Your task to perform on an android device: refresh tabs in the chrome app Image 0: 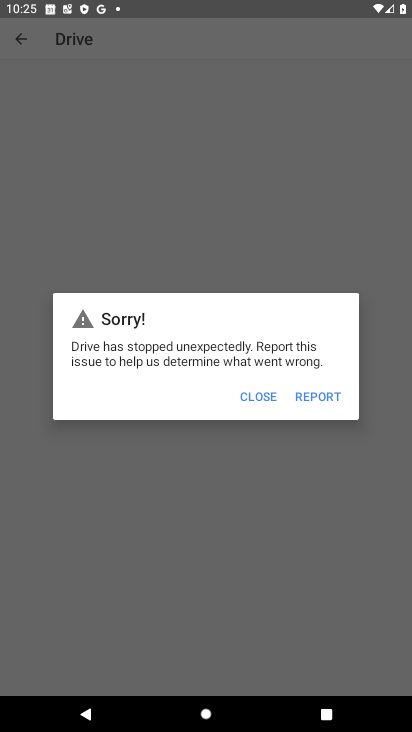
Step 0: press home button
Your task to perform on an android device: refresh tabs in the chrome app Image 1: 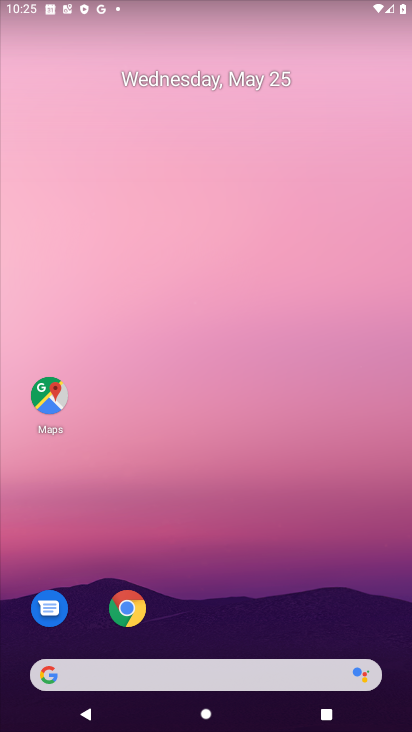
Step 1: click (132, 610)
Your task to perform on an android device: refresh tabs in the chrome app Image 2: 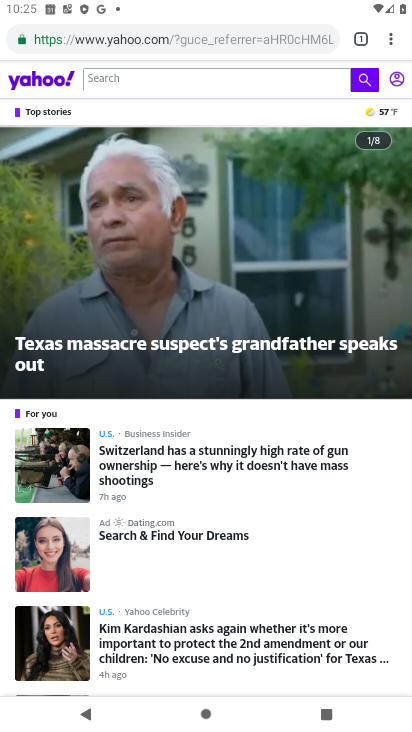
Step 2: click (391, 39)
Your task to perform on an android device: refresh tabs in the chrome app Image 3: 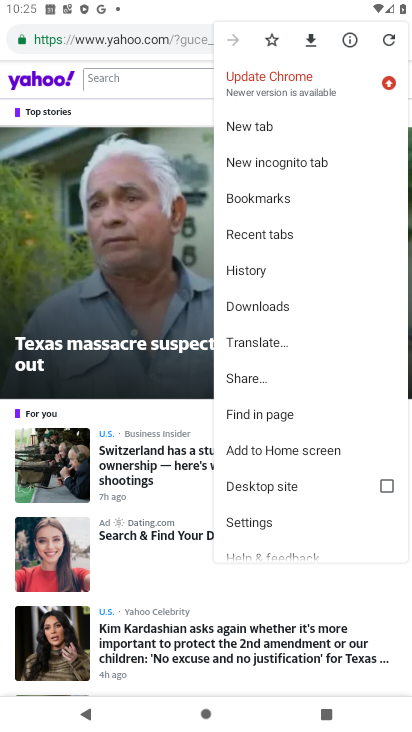
Step 3: click (391, 40)
Your task to perform on an android device: refresh tabs in the chrome app Image 4: 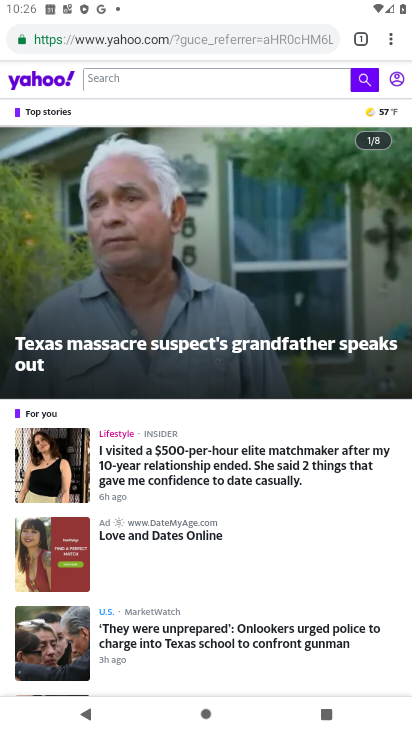
Step 4: task complete